Your task to perform on an android device: Open Wikipedia Image 0: 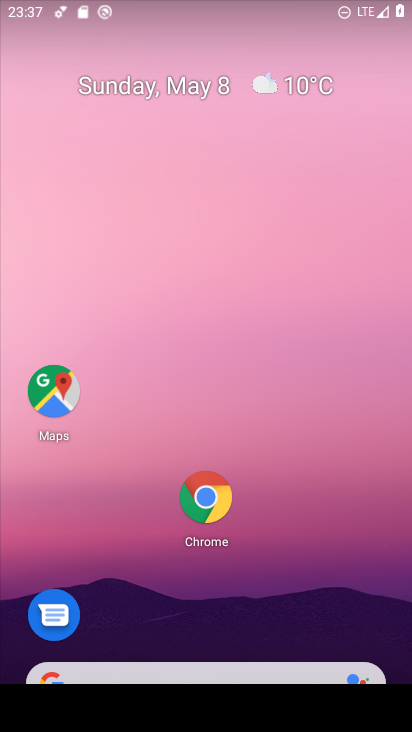
Step 0: click (207, 497)
Your task to perform on an android device: Open Wikipedia Image 1: 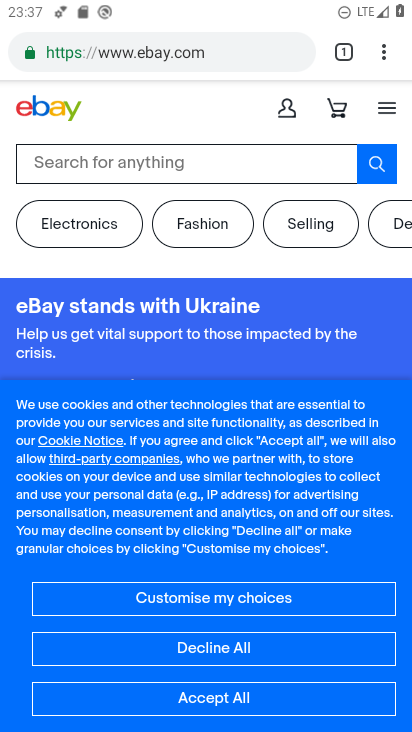
Step 1: click (214, 69)
Your task to perform on an android device: Open Wikipedia Image 2: 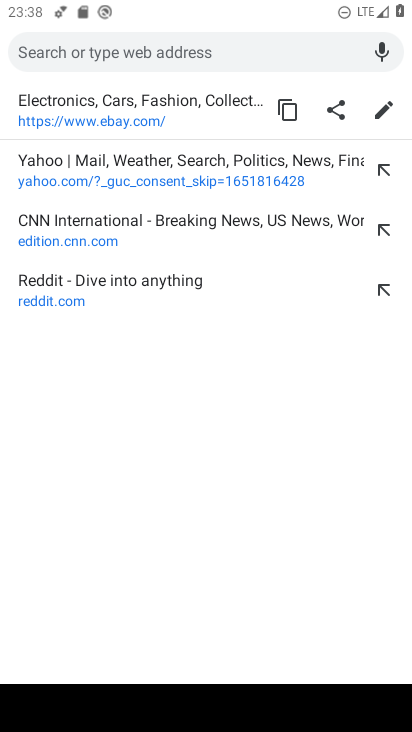
Step 2: type "wikipedia"
Your task to perform on an android device: Open Wikipedia Image 3: 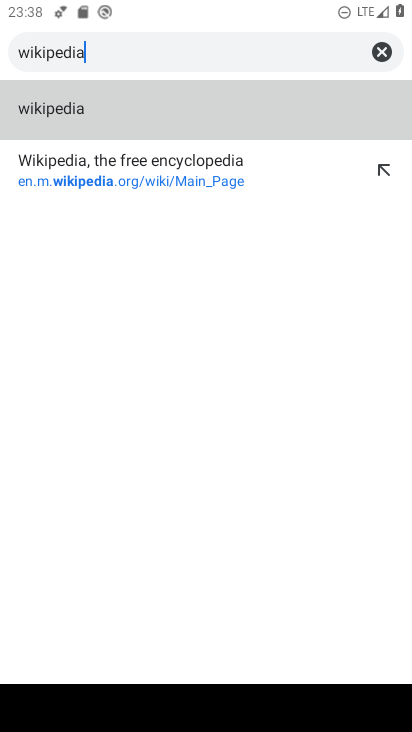
Step 3: click (39, 105)
Your task to perform on an android device: Open Wikipedia Image 4: 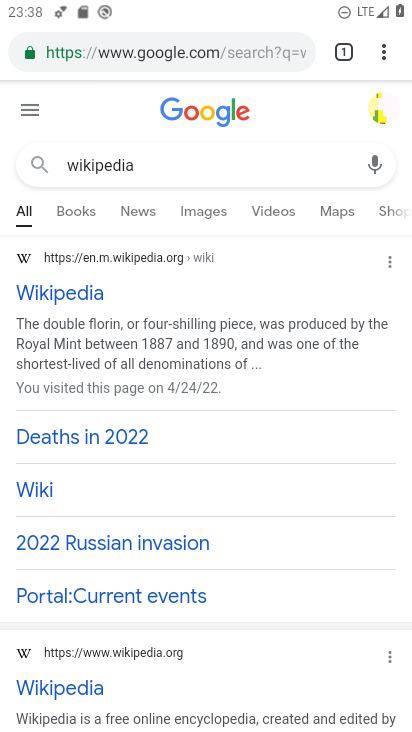
Step 4: click (46, 279)
Your task to perform on an android device: Open Wikipedia Image 5: 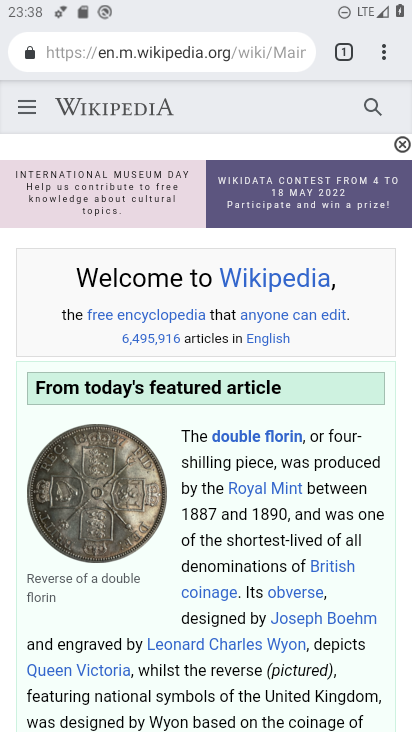
Step 5: task complete